Your task to perform on an android device: create a new album in the google photos Image 0: 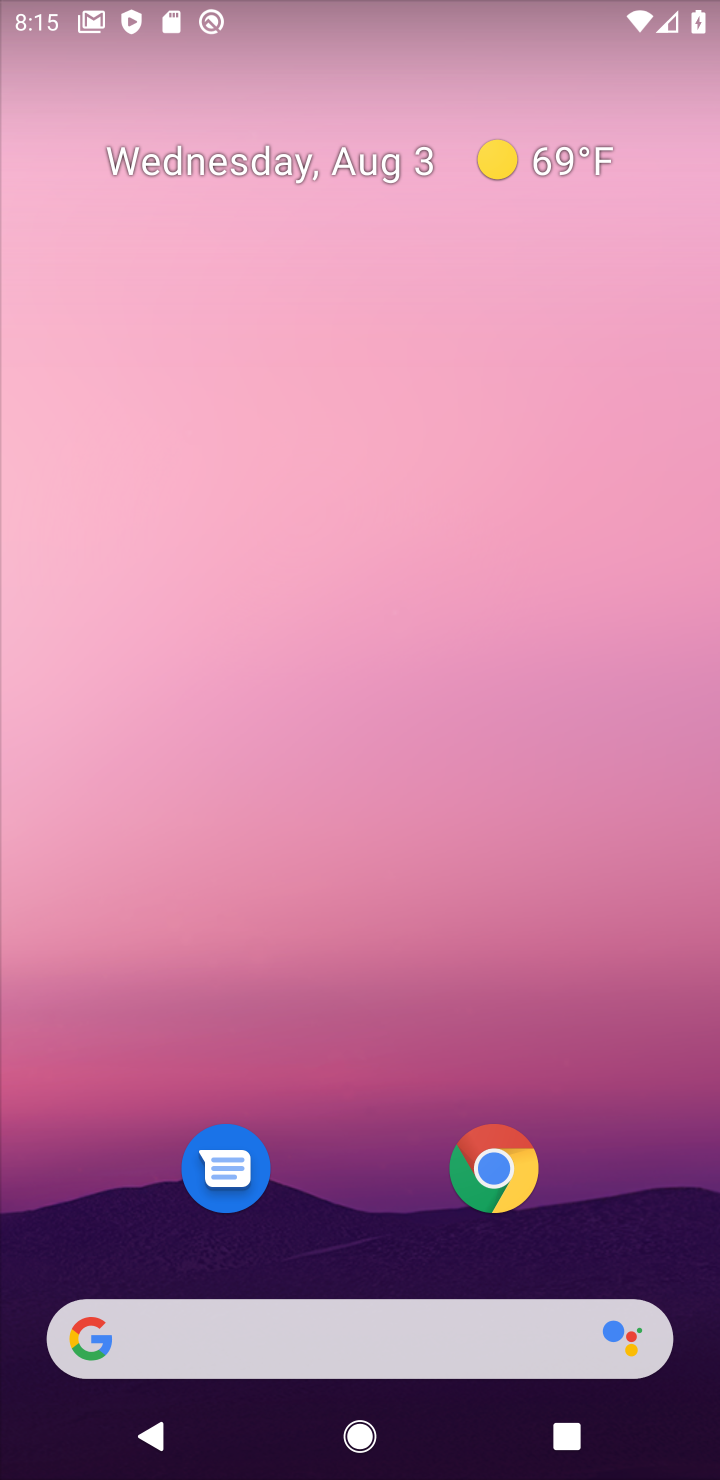
Step 0: drag from (367, 1125) to (648, 1089)
Your task to perform on an android device: create a new album in the google photos Image 1: 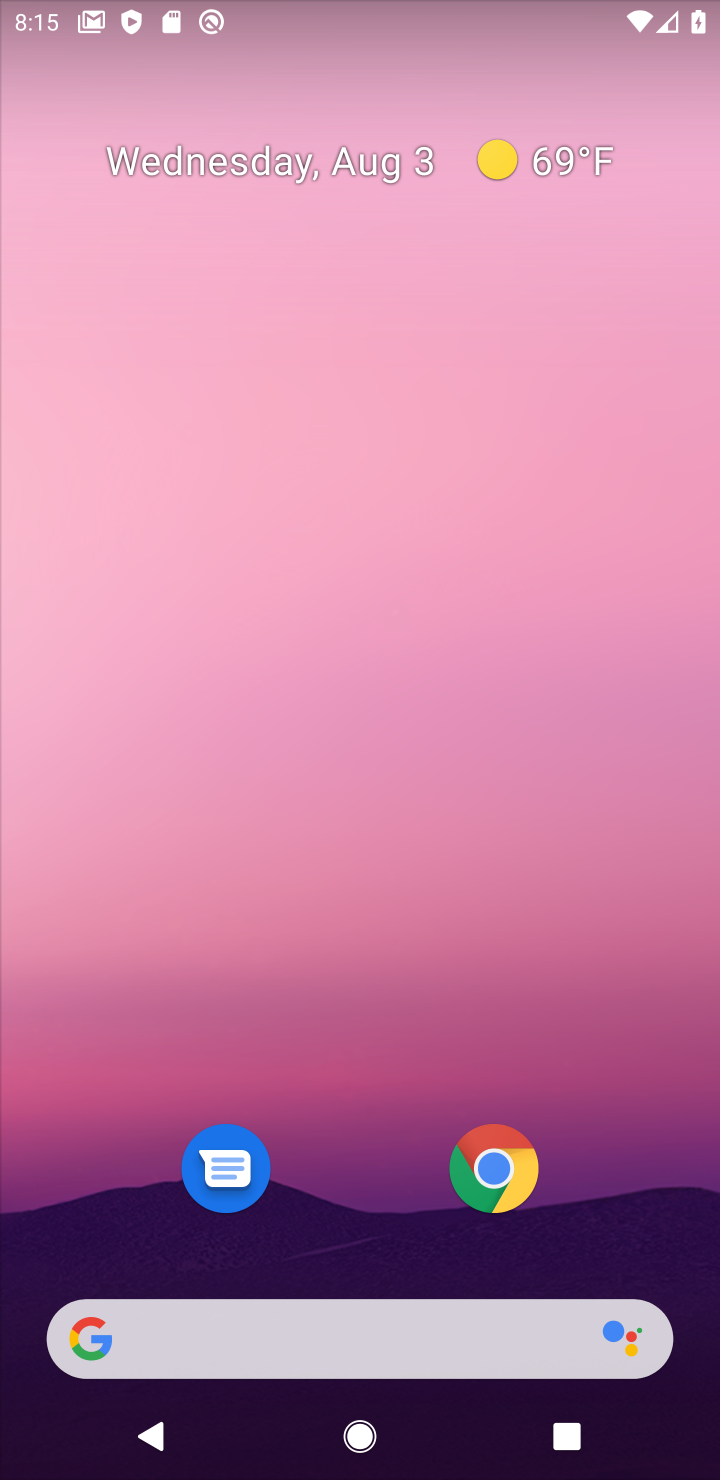
Step 1: drag from (423, 1270) to (683, 852)
Your task to perform on an android device: create a new album in the google photos Image 2: 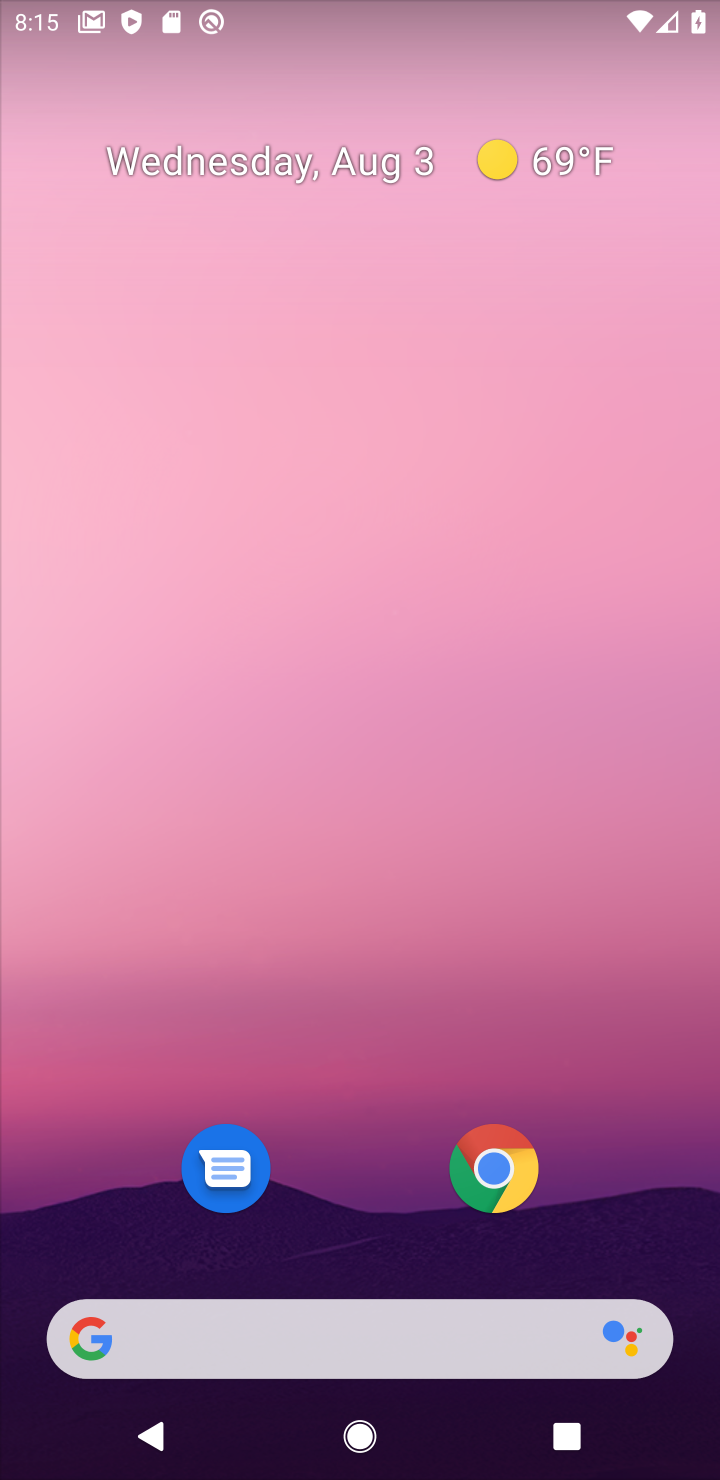
Step 2: drag from (383, 1277) to (558, 50)
Your task to perform on an android device: create a new album in the google photos Image 3: 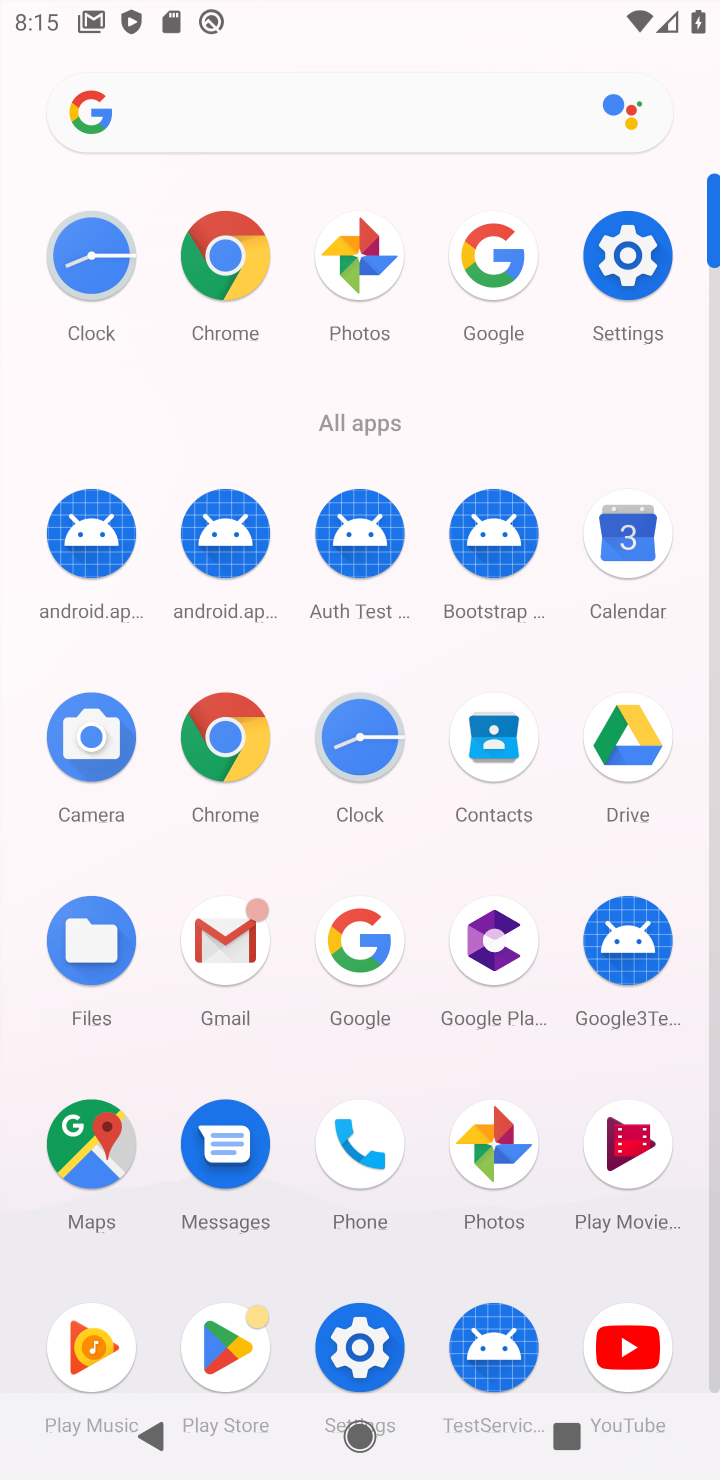
Step 3: click (507, 1165)
Your task to perform on an android device: create a new album in the google photos Image 4: 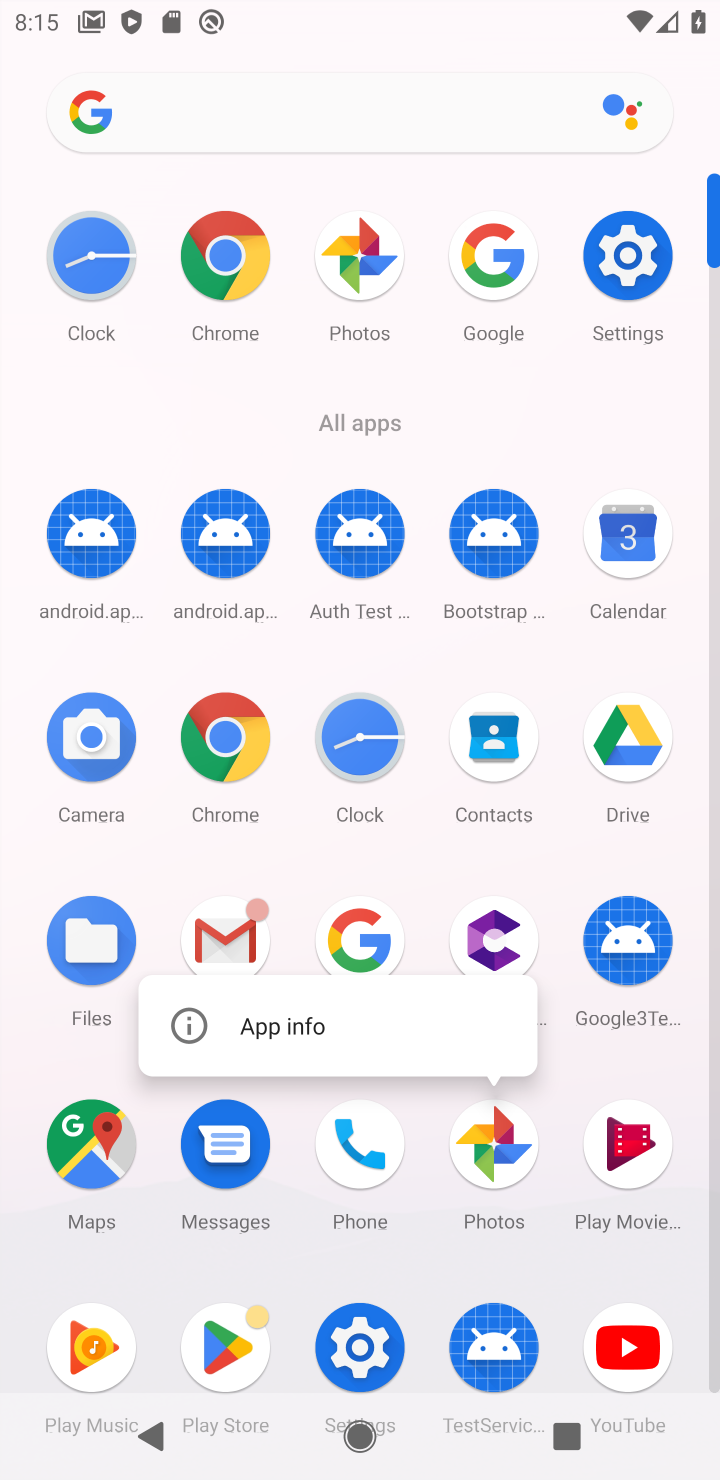
Step 4: click (479, 1160)
Your task to perform on an android device: create a new album in the google photos Image 5: 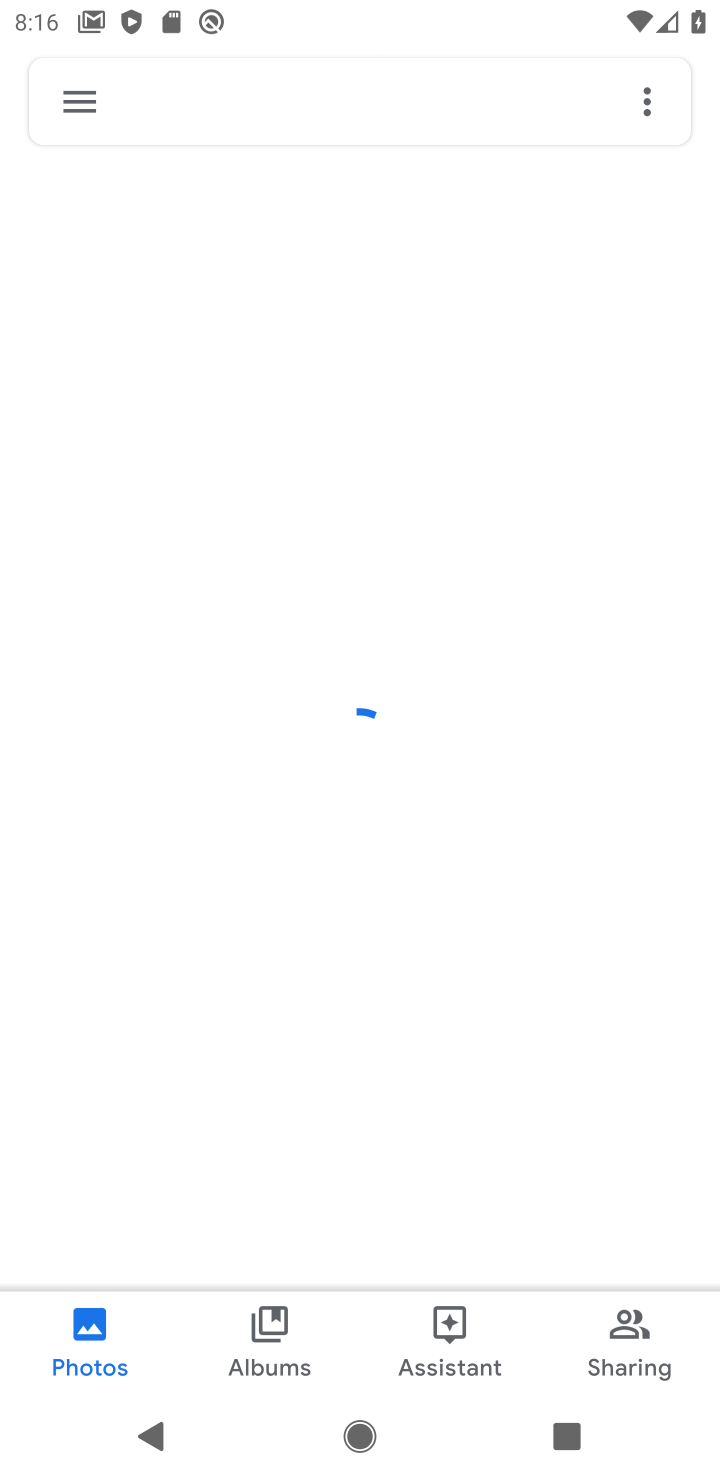
Step 5: click (231, 1342)
Your task to perform on an android device: create a new album in the google photos Image 6: 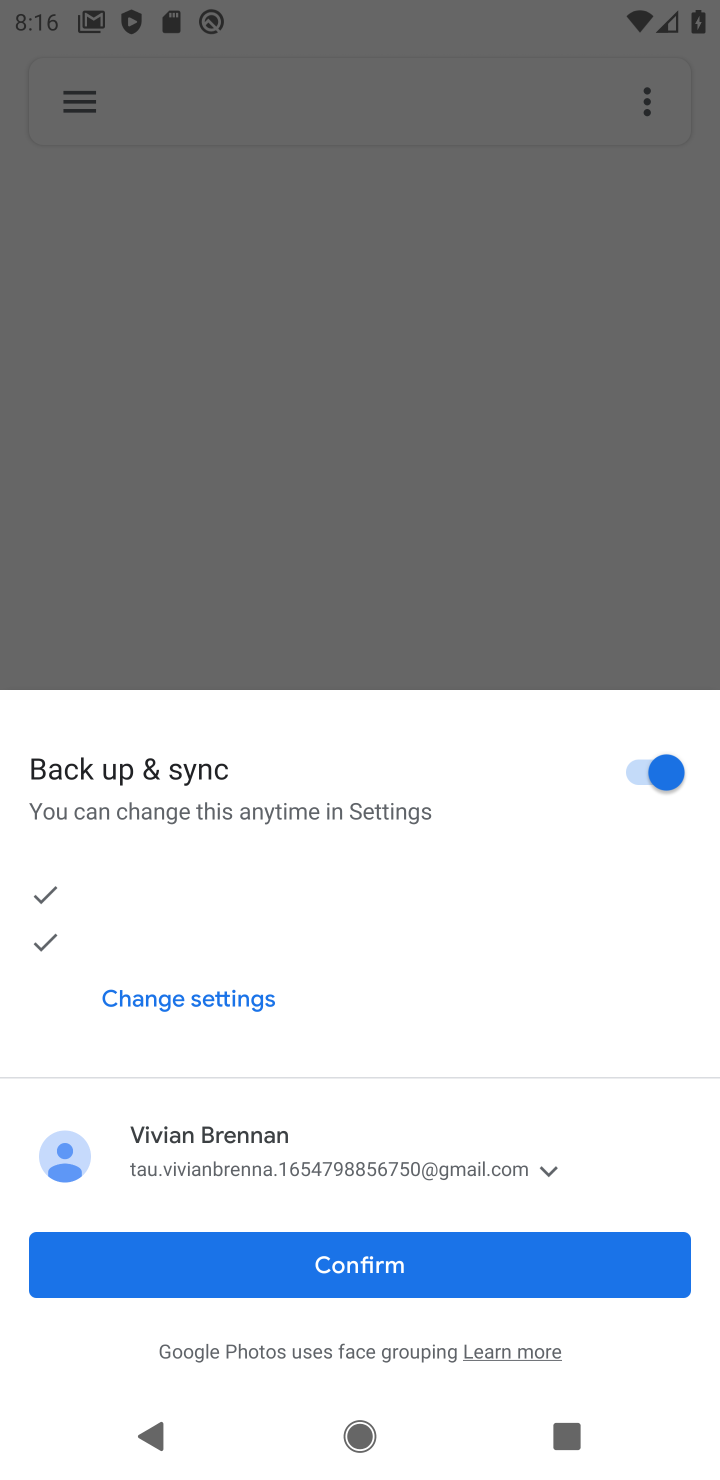
Step 6: click (321, 1275)
Your task to perform on an android device: create a new album in the google photos Image 7: 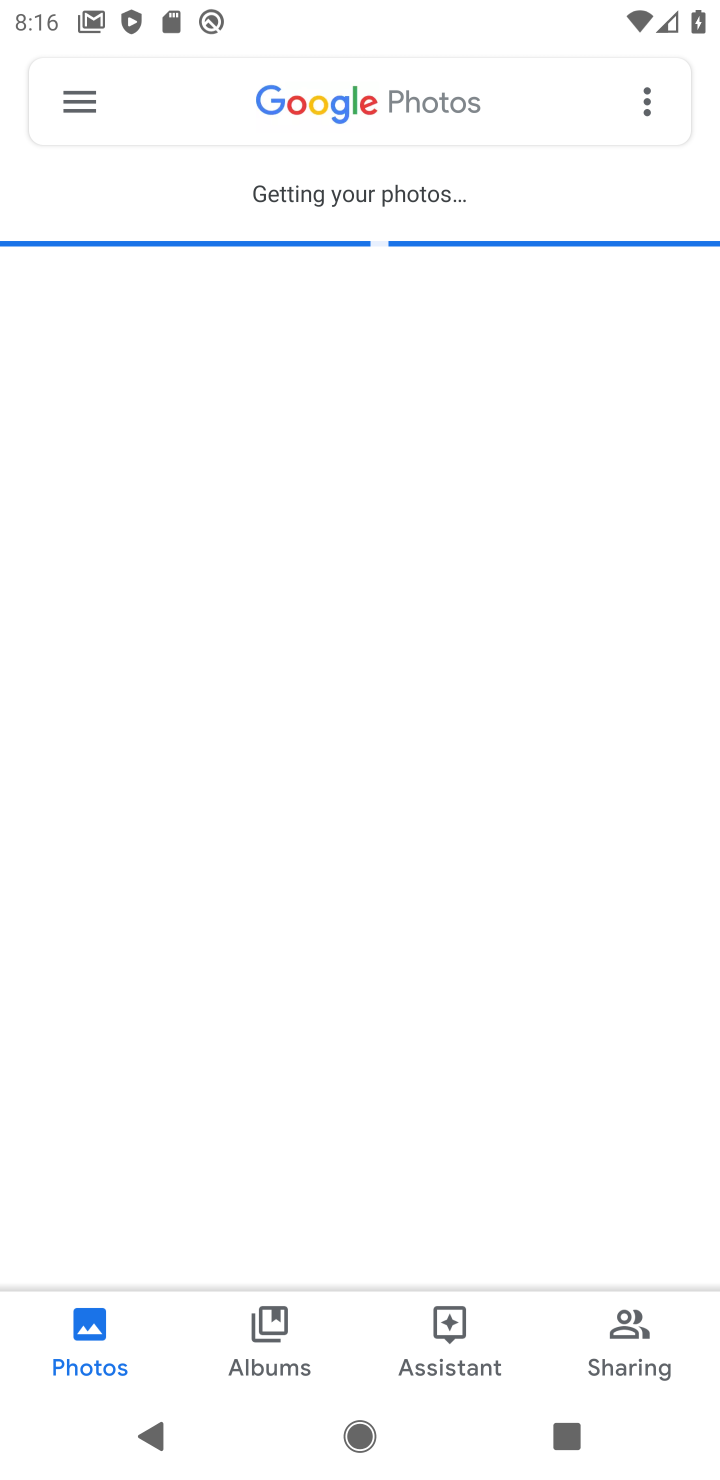
Step 7: click (249, 1356)
Your task to perform on an android device: create a new album in the google photos Image 8: 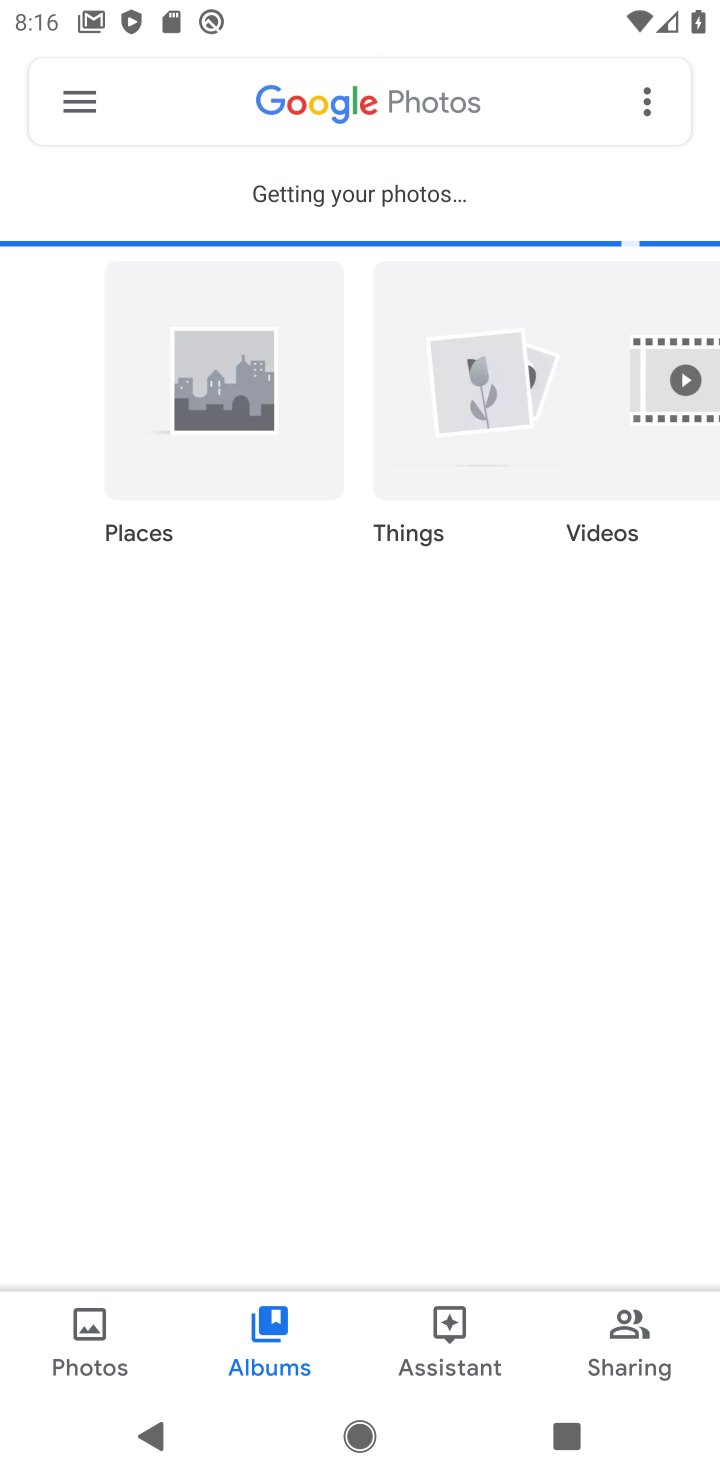
Step 8: task complete